Your task to perform on an android device: install app "Skype" Image 0: 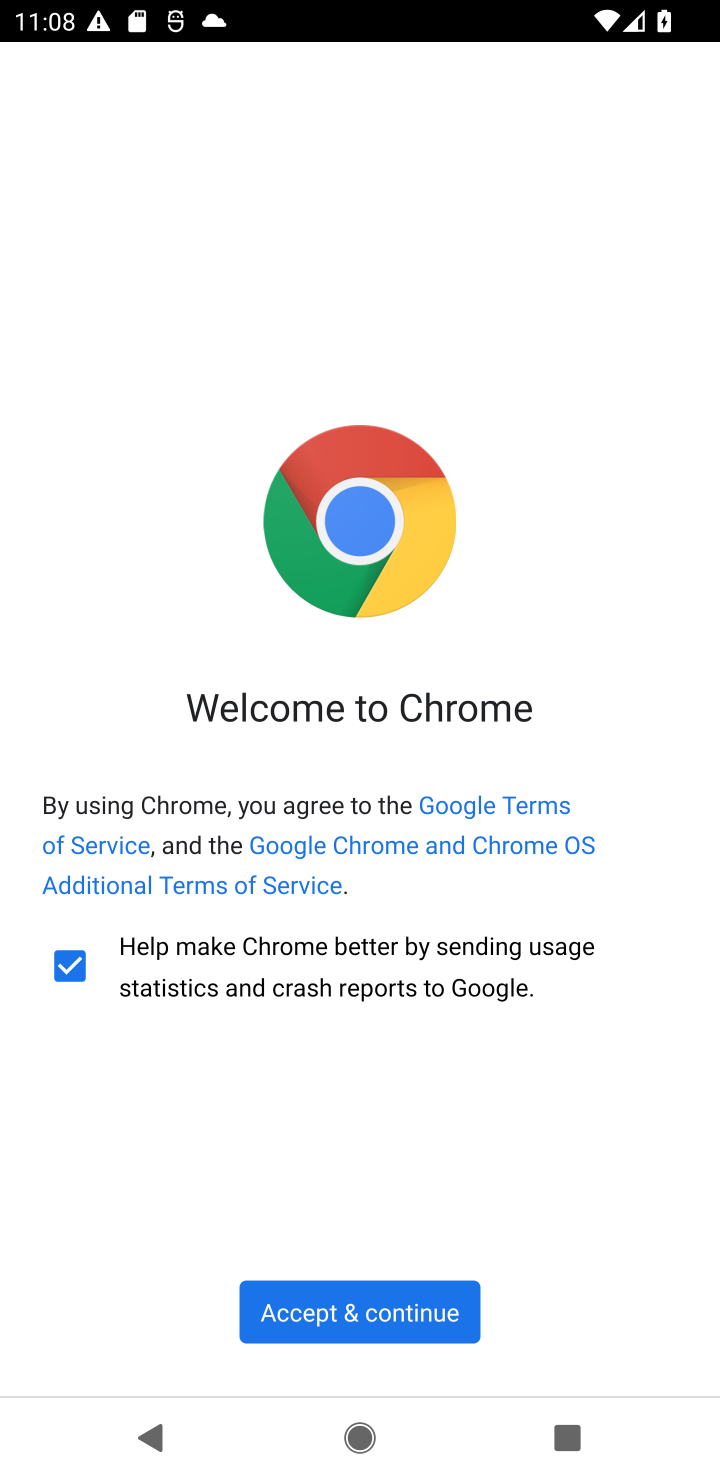
Step 0: press home button
Your task to perform on an android device: install app "Skype" Image 1: 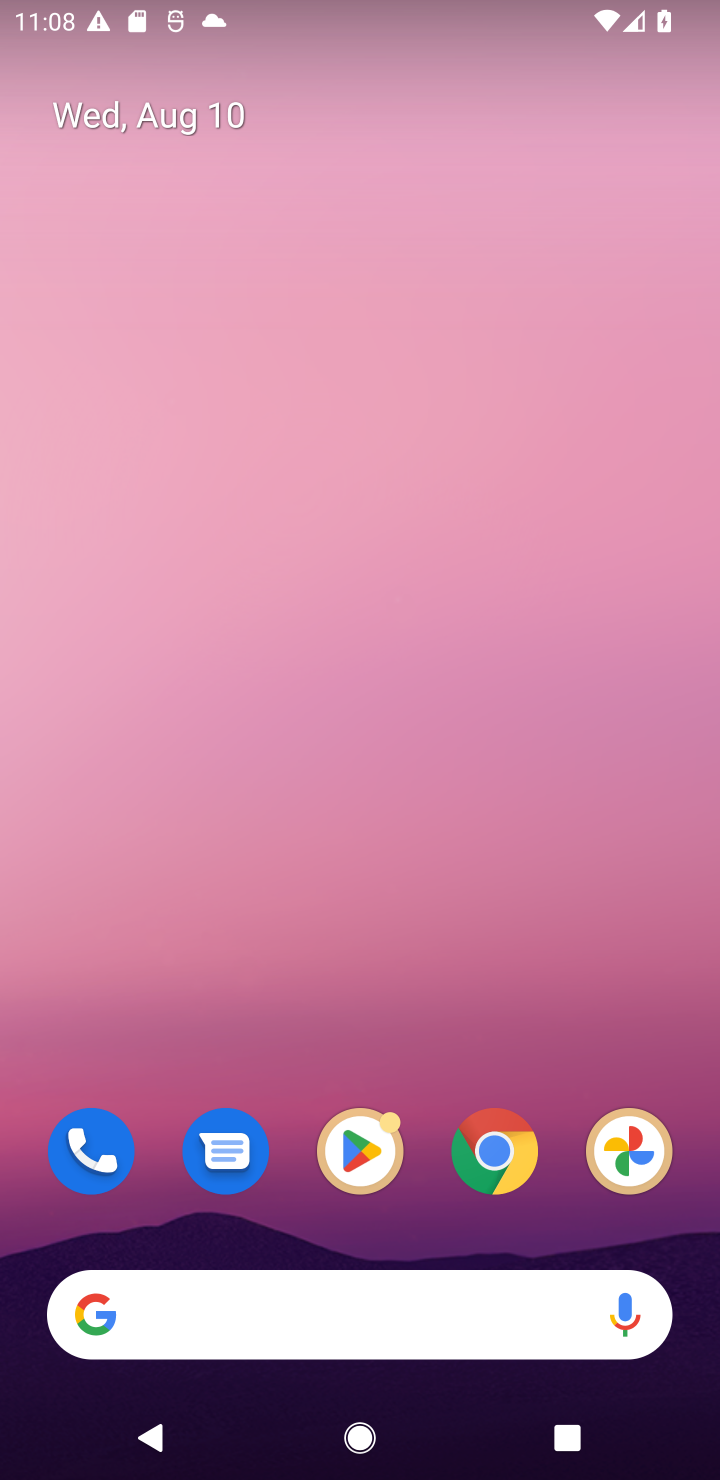
Step 1: drag from (418, 1082) to (427, 101)
Your task to perform on an android device: install app "Skype" Image 2: 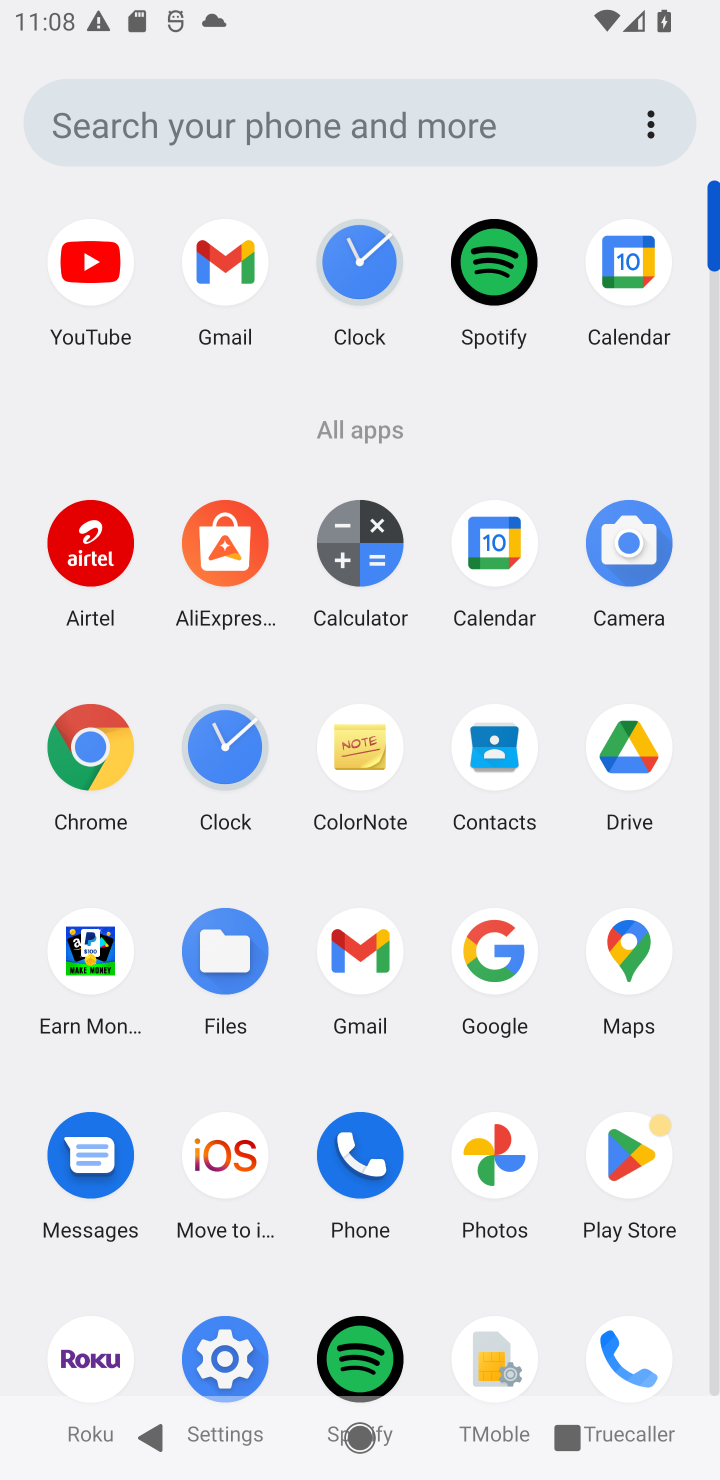
Step 2: click (632, 1143)
Your task to perform on an android device: install app "Skype" Image 3: 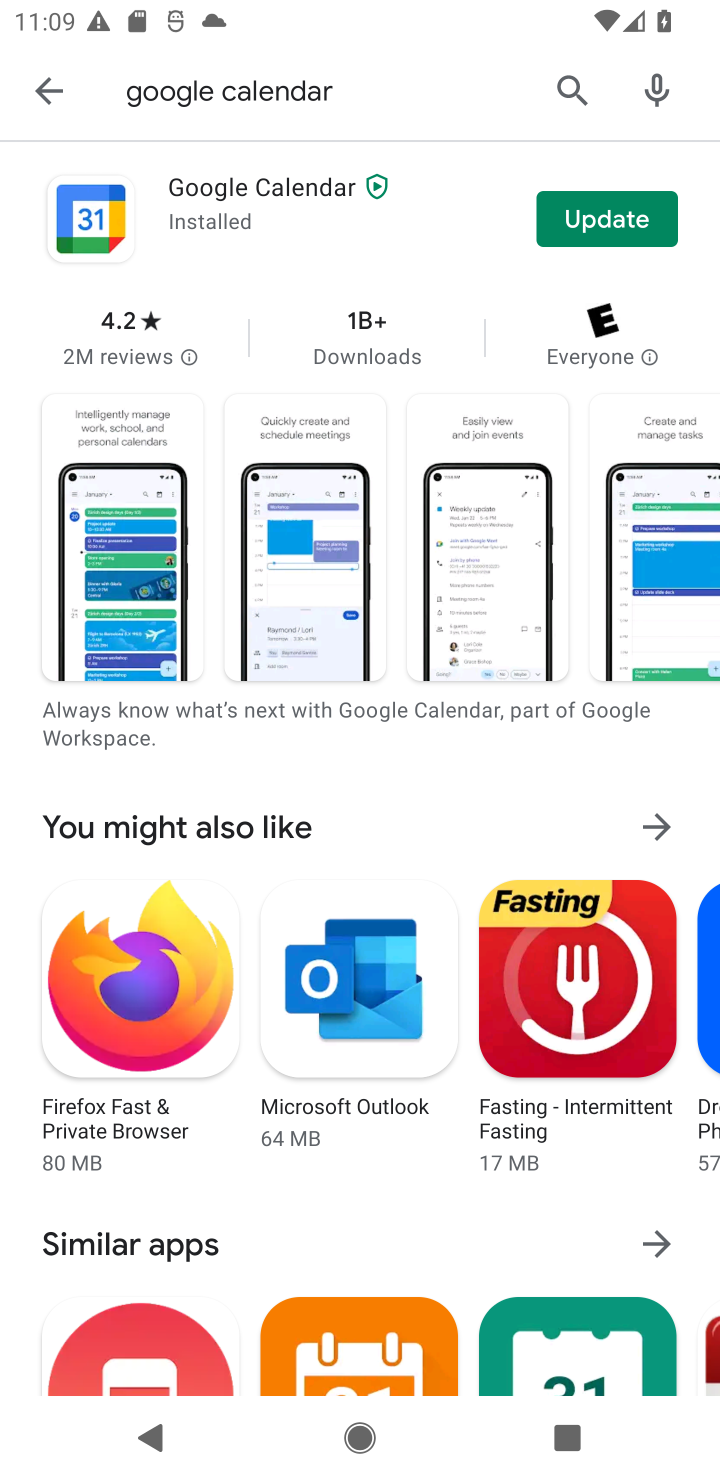
Step 3: click (570, 74)
Your task to perform on an android device: install app "Skype" Image 4: 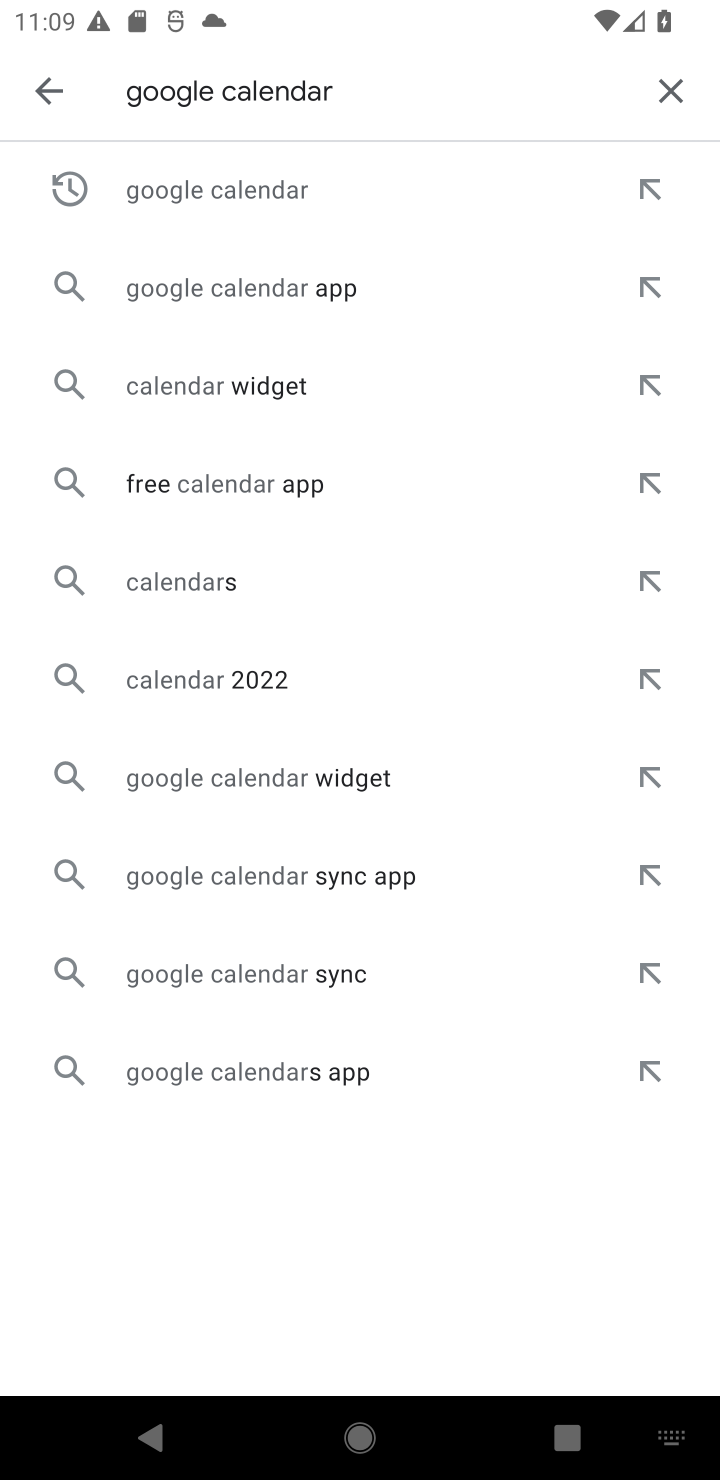
Step 4: click (674, 96)
Your task to perform on an android device: install app "Skype" Image 5: 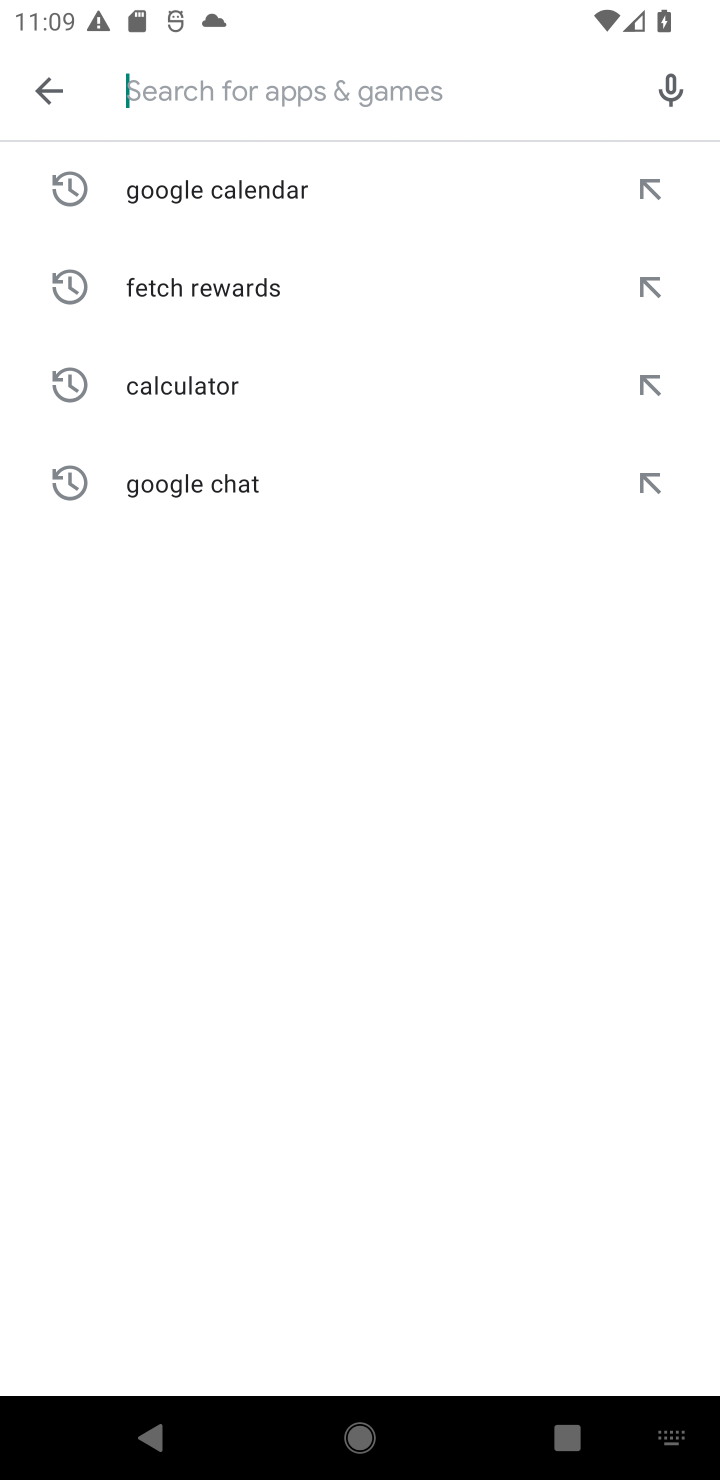
Step 5: type "Skype"
Your task to perform on an android device: install app "Skype" Image 6: 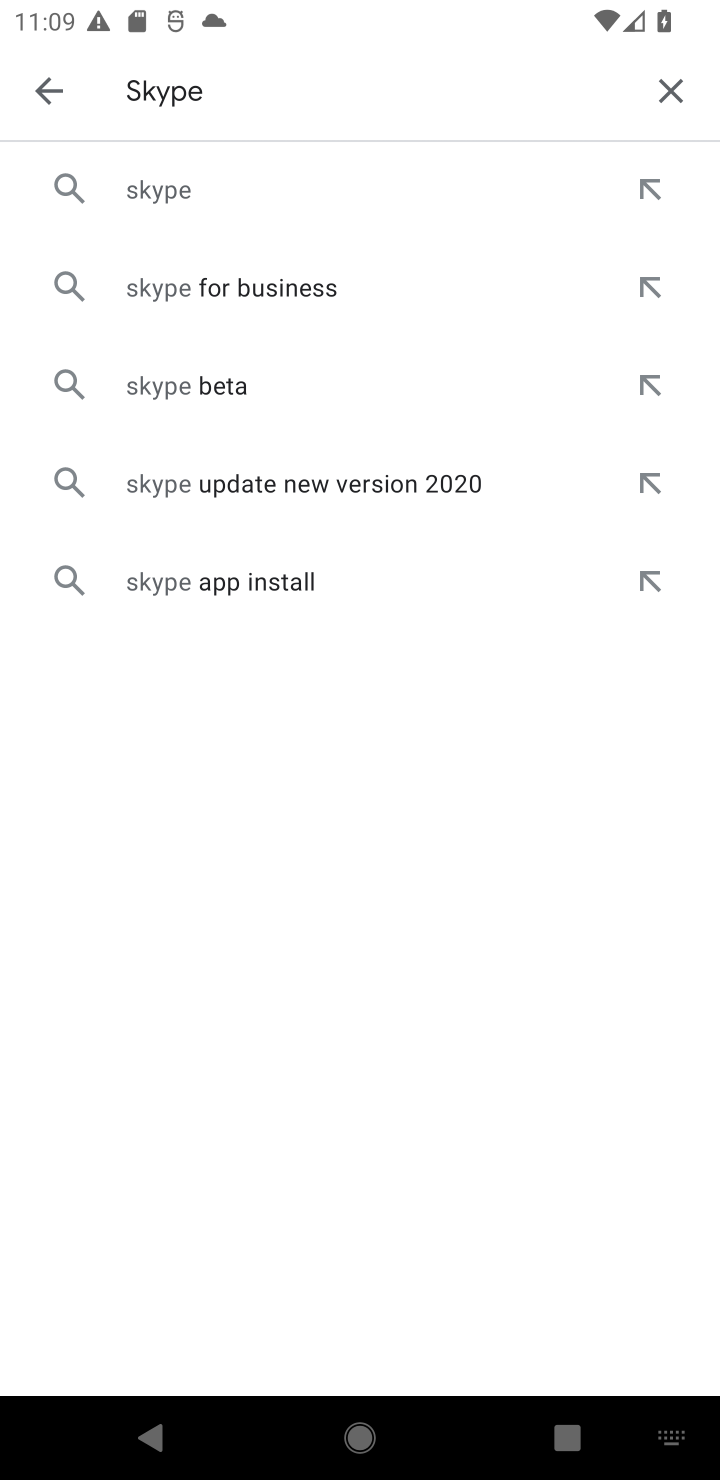
Step 6: click (211, 188)
Your task to perform on an android device: install app "Skype" Image 7: 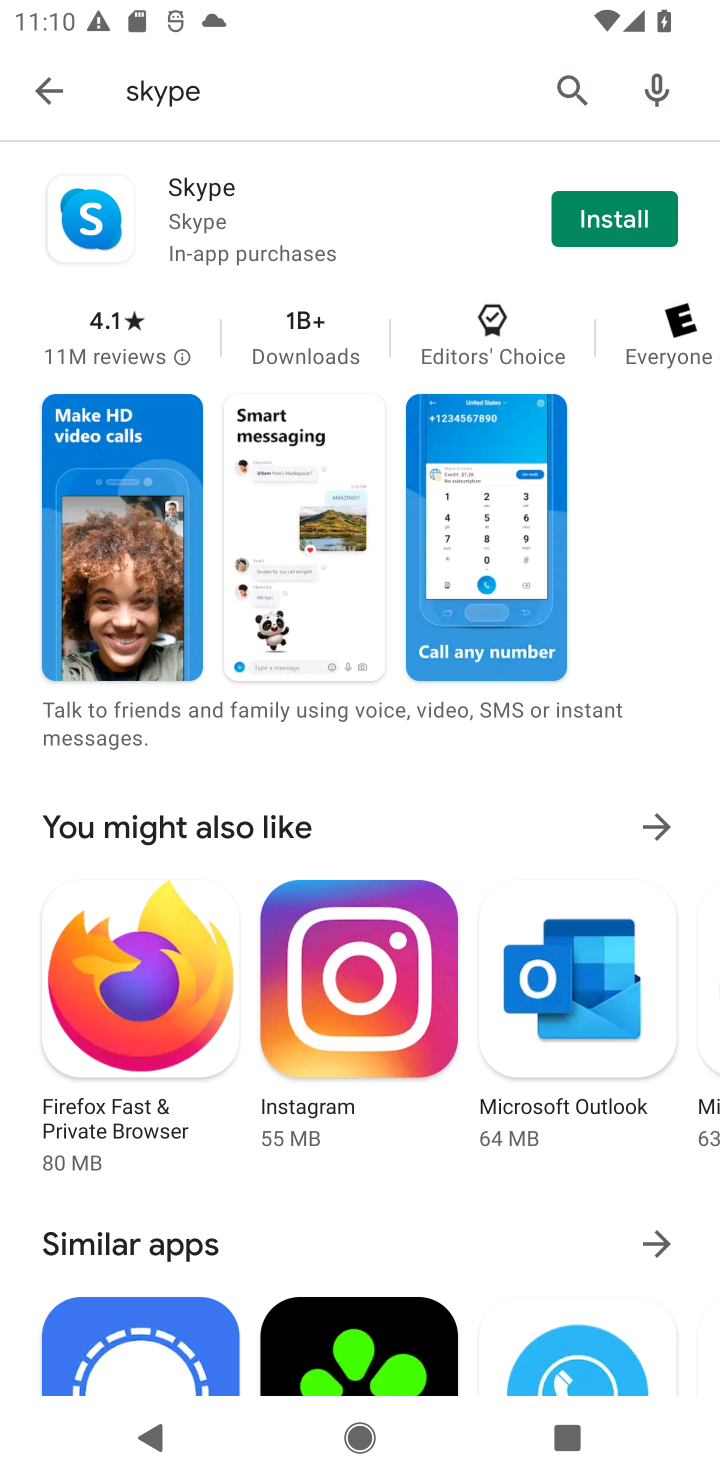
Step 7: click (593, 218)
Your task to perform on an android device: install app "Skype" Image 8: 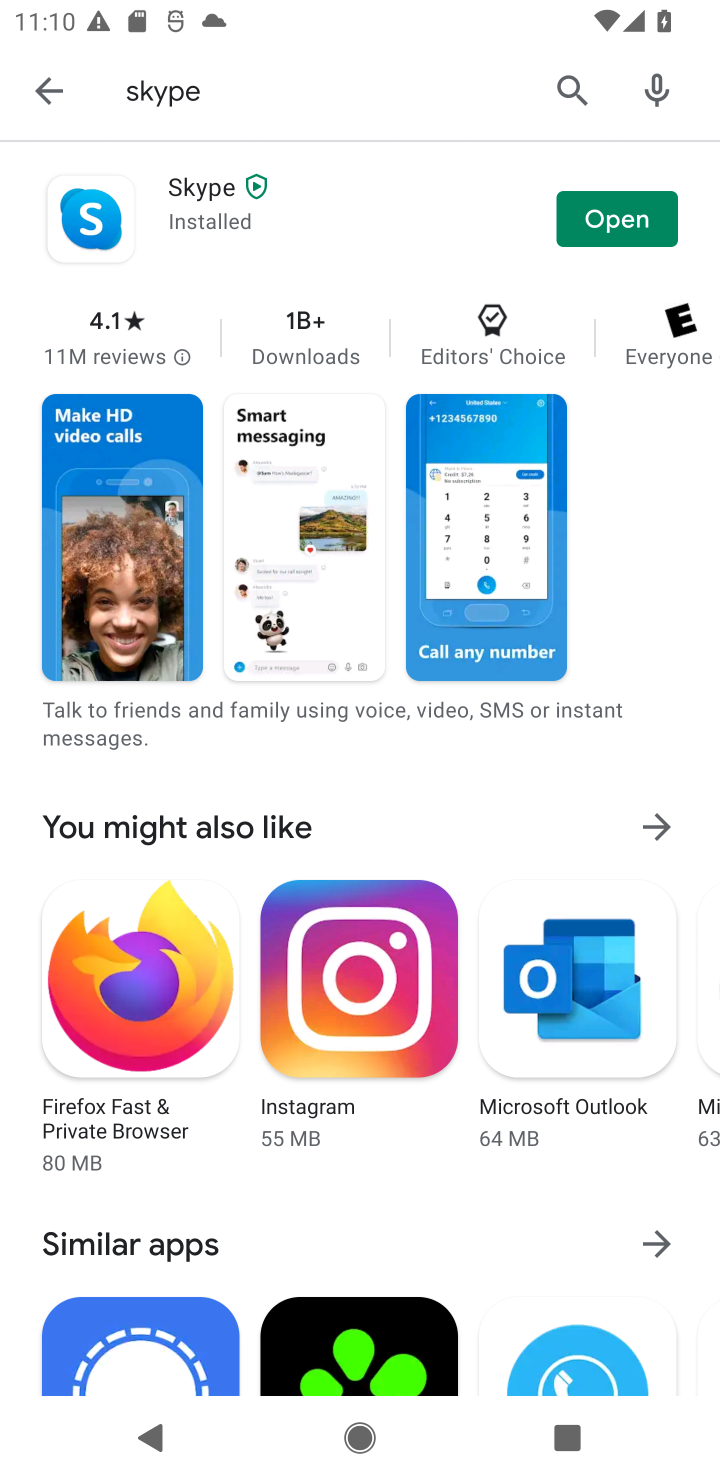
Step 8: click (603, 221)
Your task to perform on an android device: install app "Skype" Image 9: 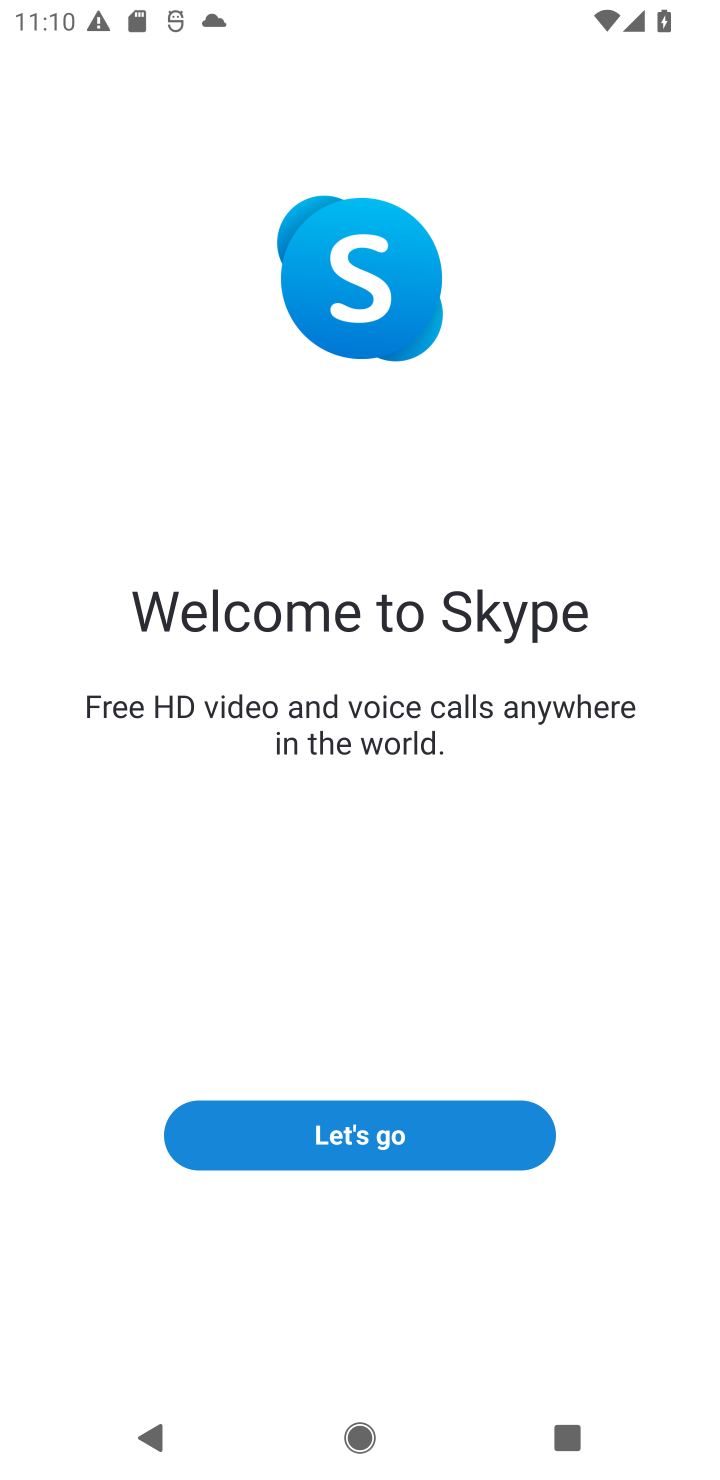
Step 9: click (367, 1133)
Your task to perform on an android device: install app "Skype" Image 10: 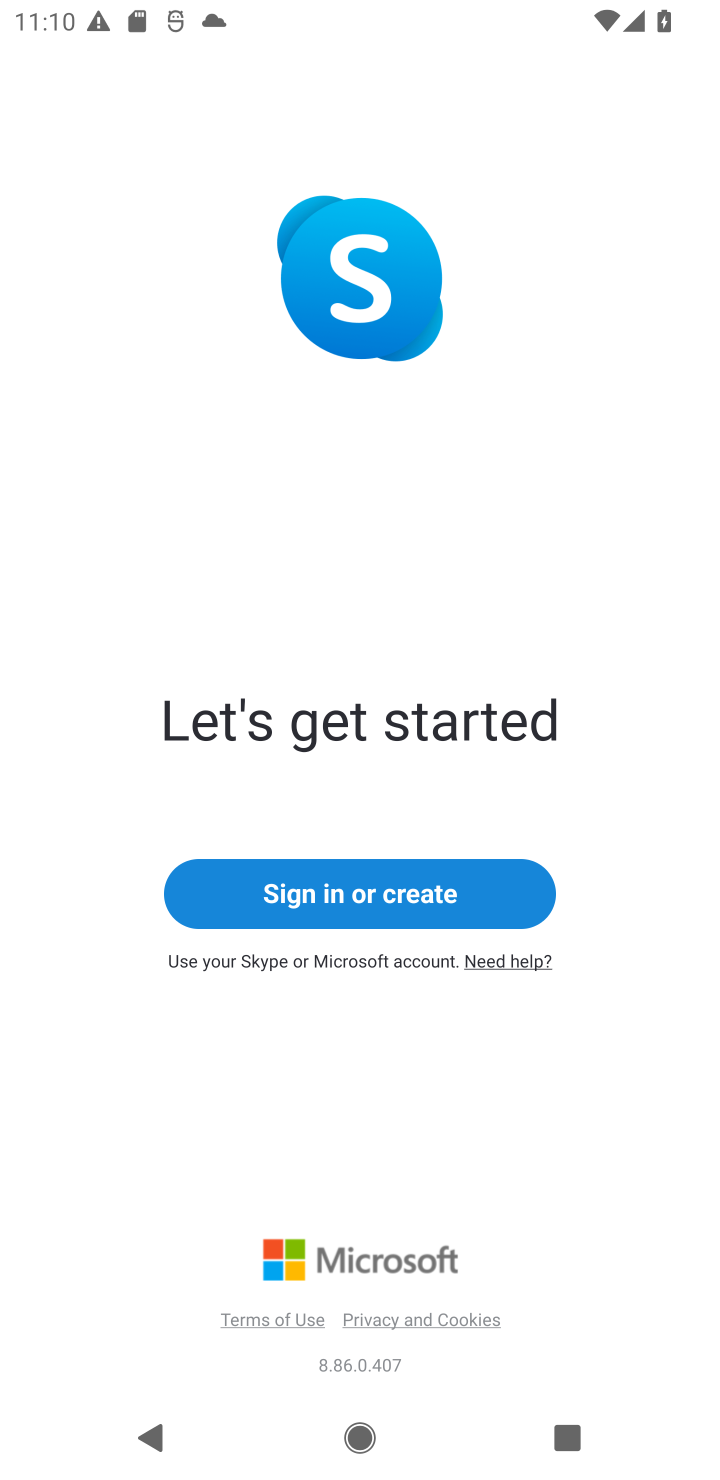
Step 10: task complete